Your task to perform on an android device: open app "Pandora - Music & Podcasts" (install if not already installed) and enter user name: "creator@yahoo.com" and password: "valuable" Image 0: 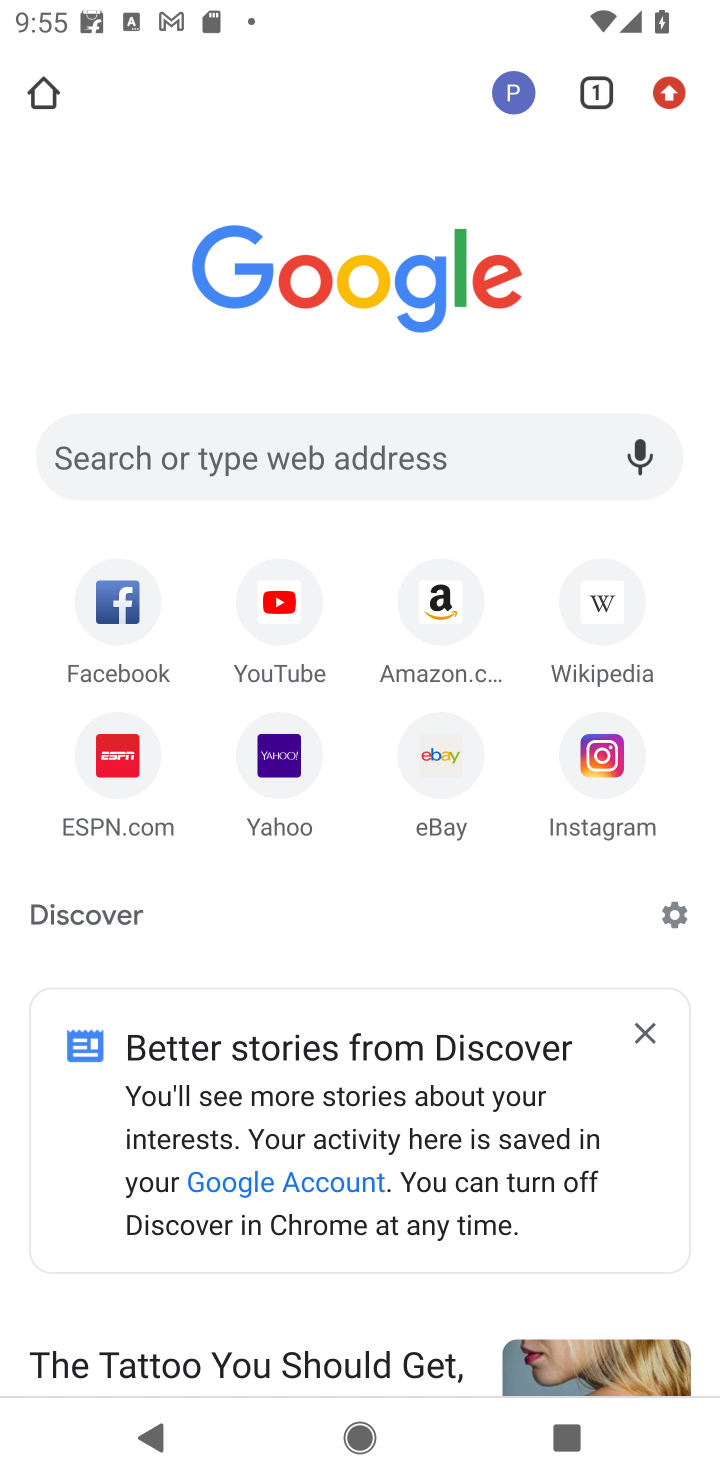
Step 0: press home button
Your task to perform on an android device: open app "Pandora - Music & Podcasts" (install if not already installed) and enter user name: "creator@yahoo.com" and password: "valuable" Image 1: 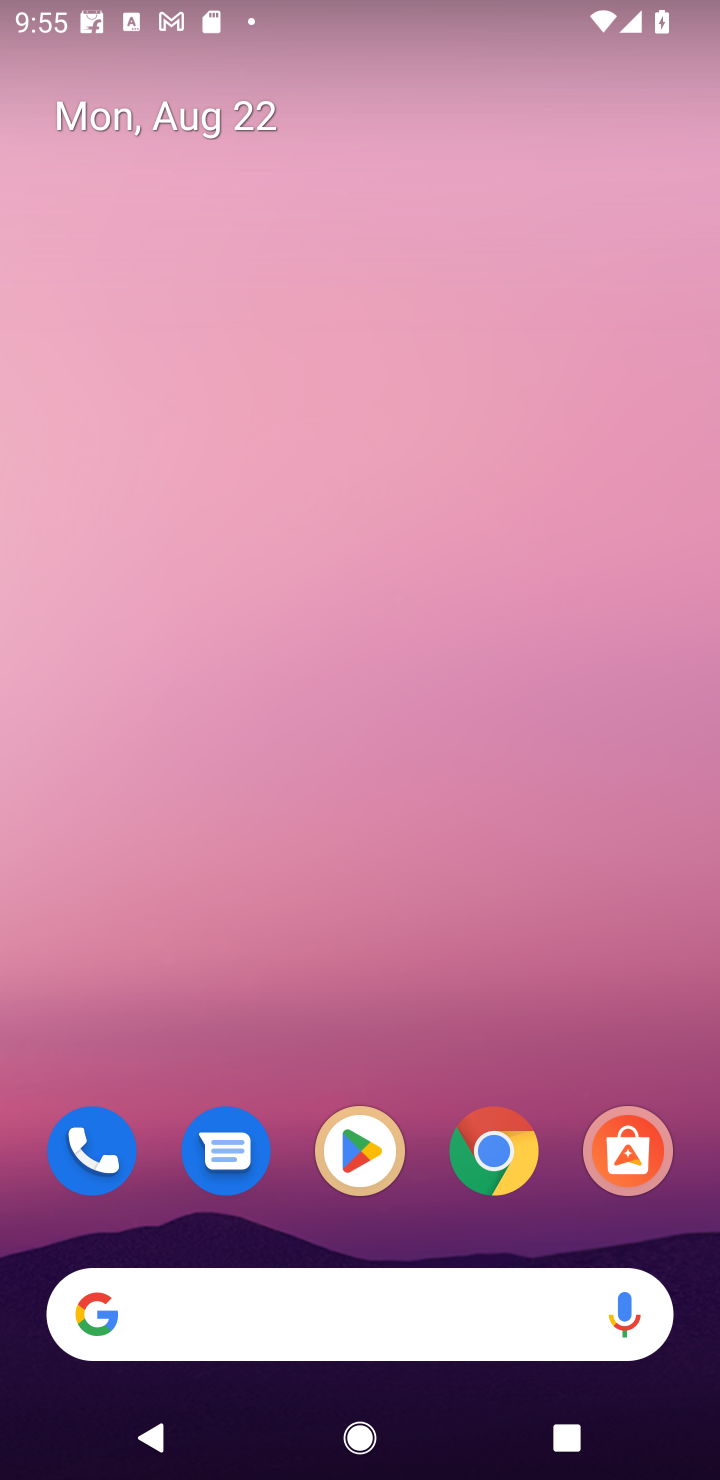
Step 1: click (350, 1141)
Your task to perform on an android device: open app "Pandora - Music & Podcasts" (install if not already installed) and enter user name: "creator@yahoo.com" and password: "valuable" Image 2: 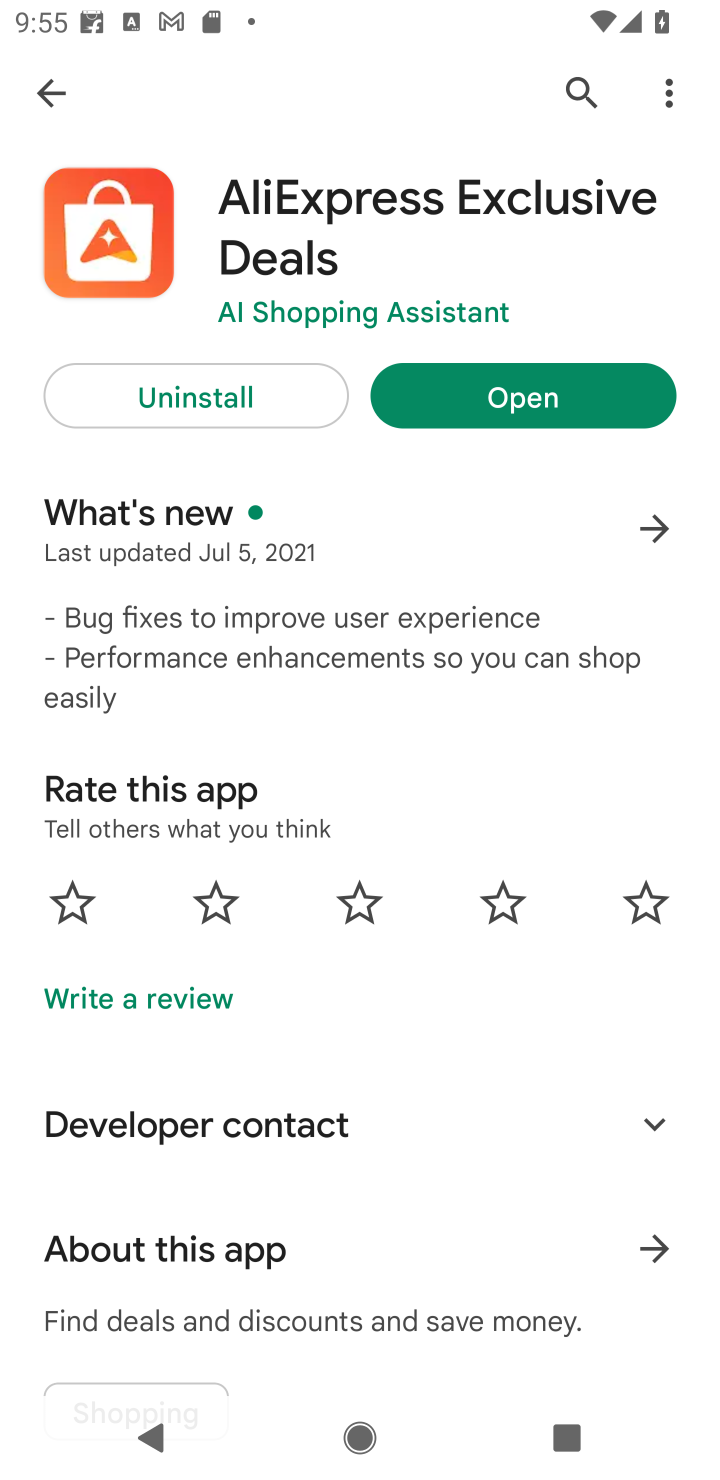
Step 2: click (350, 1145)
Your task to perform on an android device: open app "Pandora - Music & Podcasts" (install if not already installed) and enter user name: "creator@yahoo.com" and password: "valuable" Image 3: 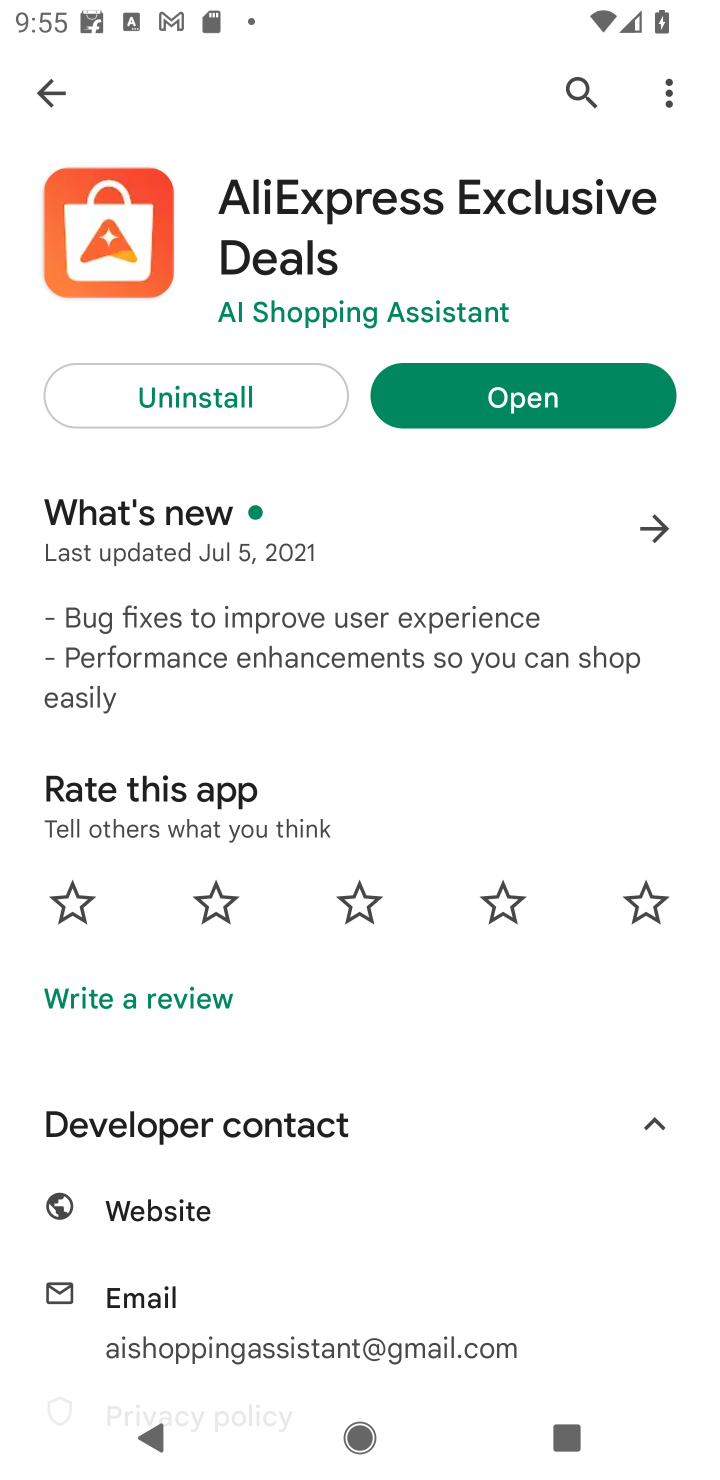
Step 3: click (593, 89)
Your task to perform on an android device: open app "Pandora - Music & Podcasts" (install if not already installed) and enter user name: "creator@yahoo.com" and password: "valuable" Image 4: 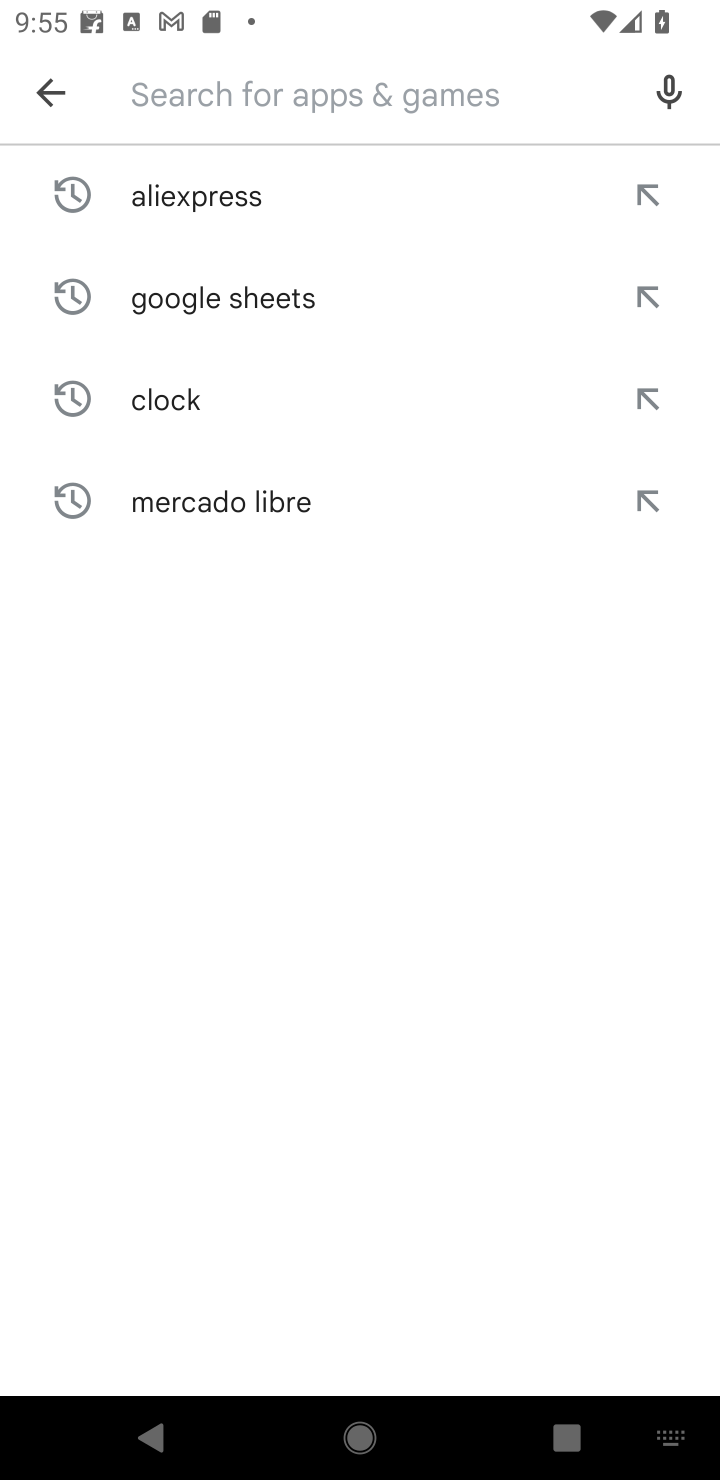
Step 4: type "Pandora - Music & Podcasts"
Your task to perform on an android device: open app "Pandora - Music & Podcasts" (install if not already installed) and enter user name: "creator@yahoo.com" and password: "valuable" Image 5: 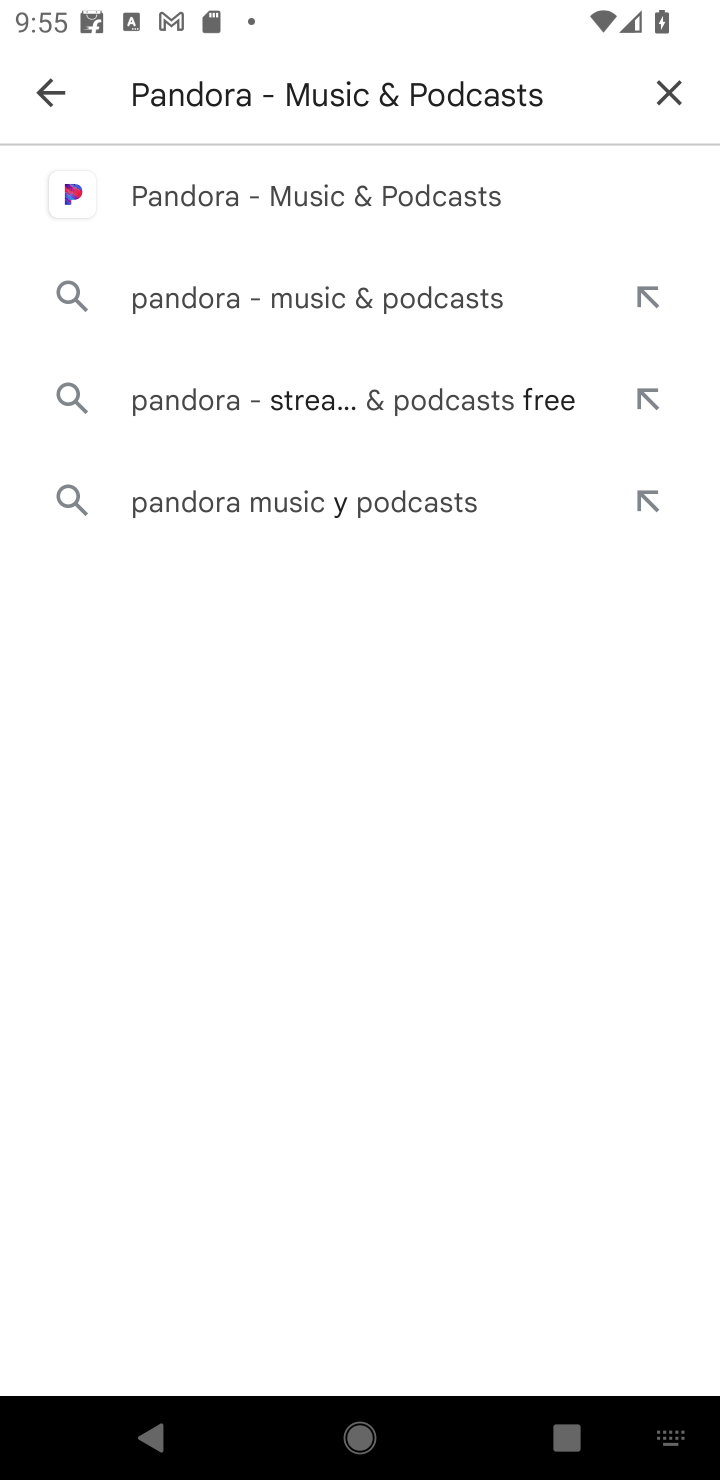
Step 5: click (337, 215)
Your task to perform on an android device: open app "Pandora - Music & Podcasts" (install if not already installed) and enter user name: "creator@yahoo.com" and password: "valuable" Image 6: 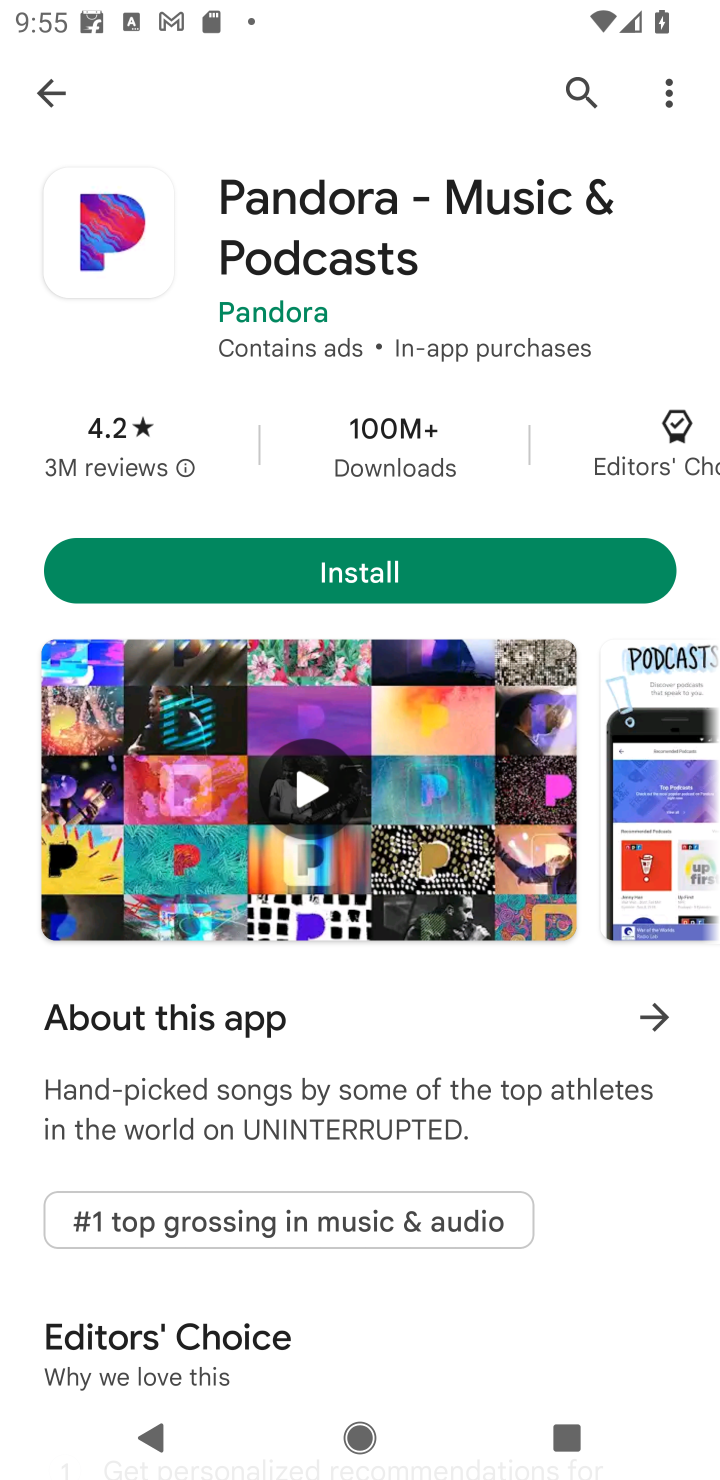
Step 6: click (352, 556)
Your task to perform on an android device: open app "Pandora - Music & Podcasts" (install if not already installed) and enter user name: "creator@yahoo.com" and password: "valuable" Image 7: 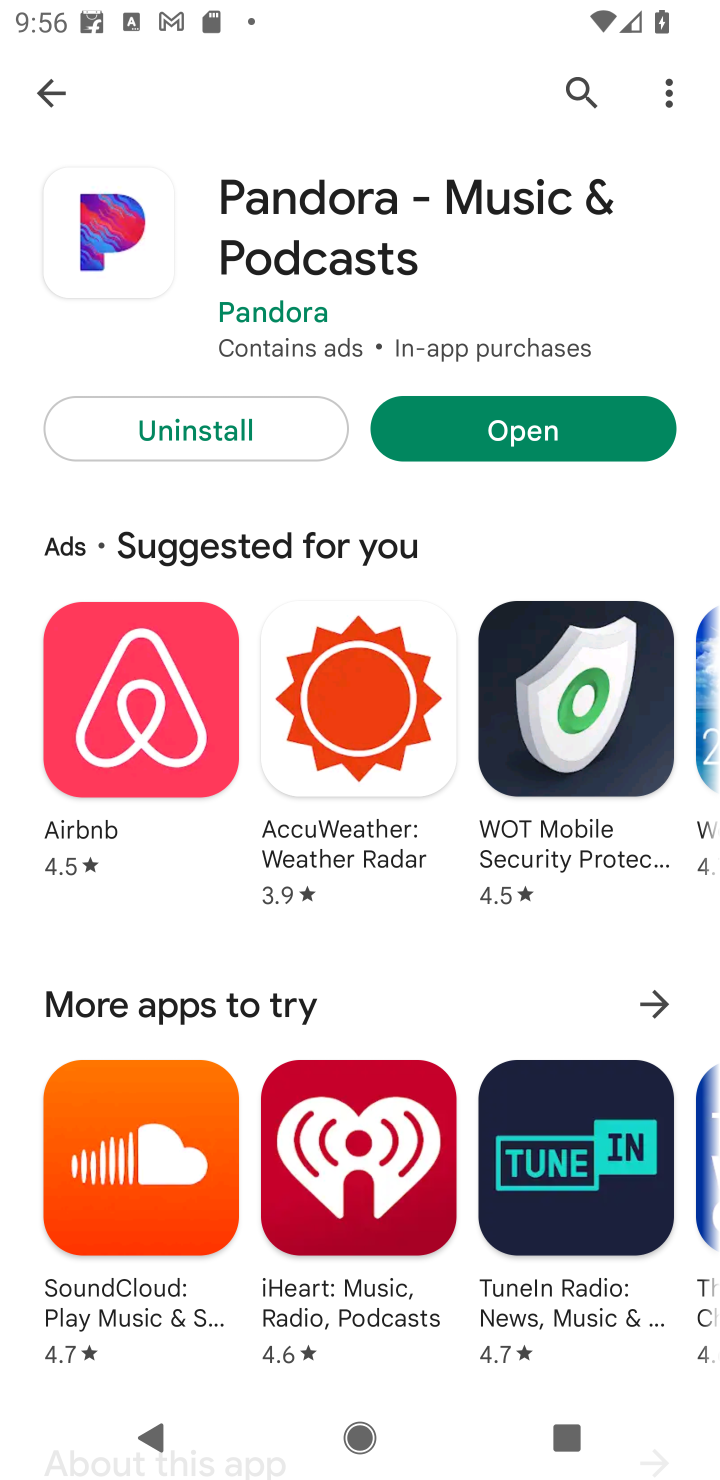
Step 7: click (552, 448)
Your task to perform on an android device: open app "Pandora - Music & Podcasts" (install if not already installed) and enter user name: "creator@yahoo.com" and password: "valuable" Image 8: 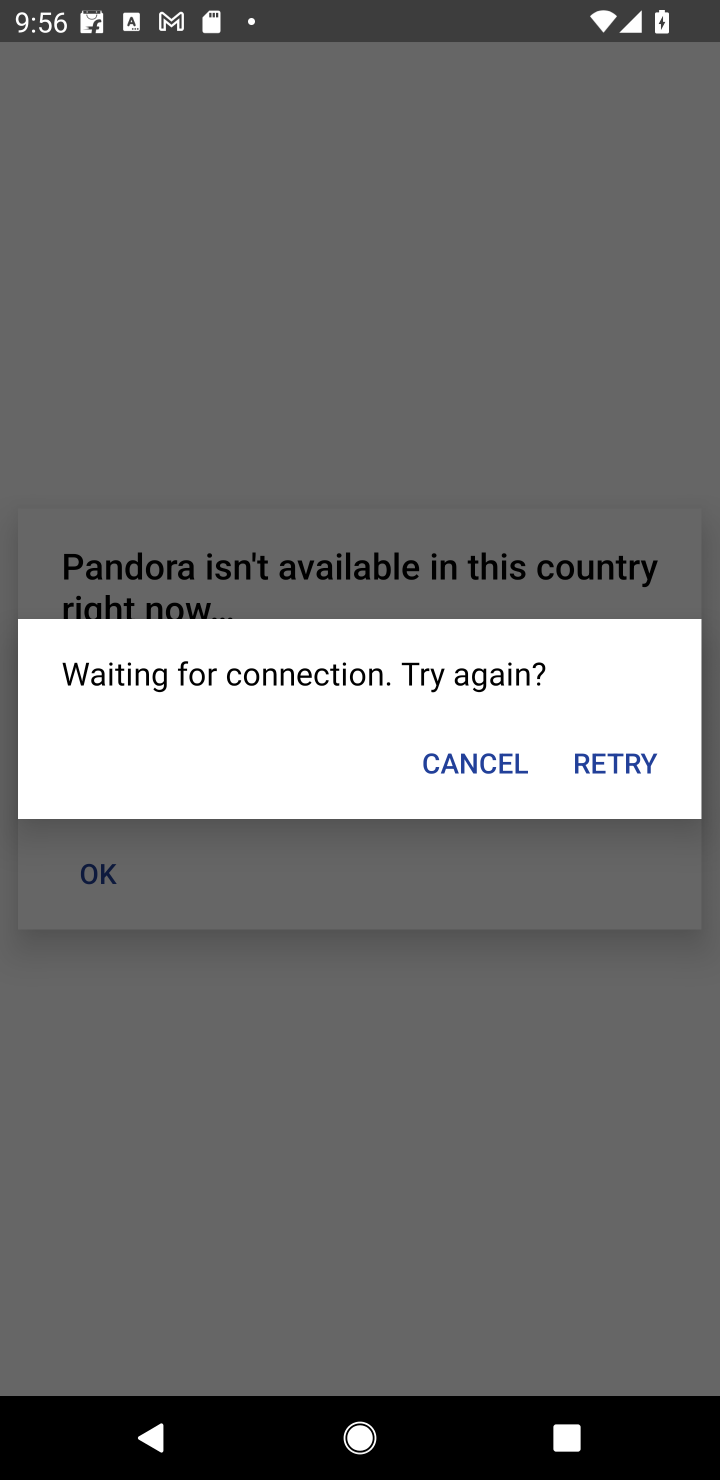
Step 8: task complete